Your task to perform on an android device: read, delete, or share a saved page in the chrome app Image 0: 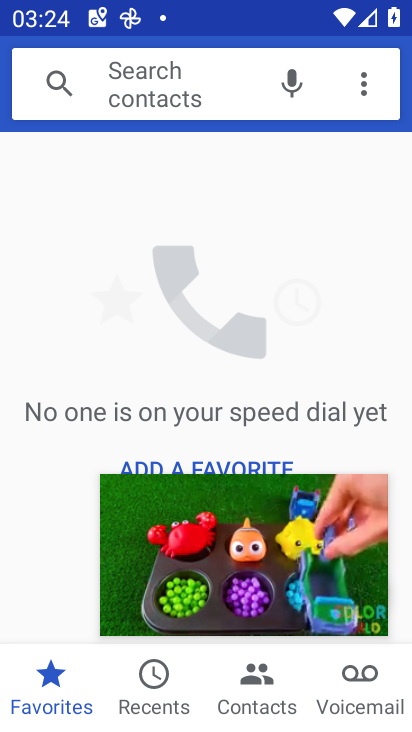
Step 0: press home button
Your task to perform on an android device: read, delete, or share a saved page in the chrome app Image 1: 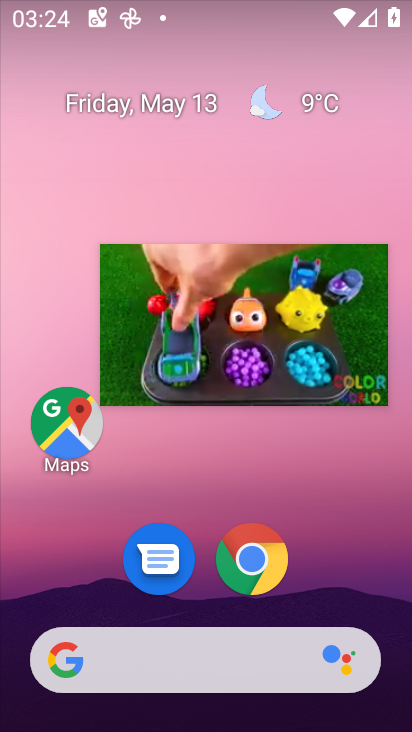
Step 1: click (254, 551)
Your task to perform on an android device: read, delete, or share a saved page in the chrome app Image 2: 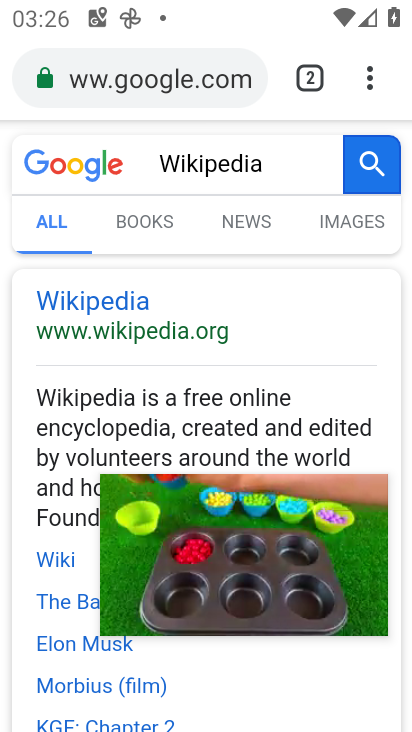
Step 2: click (367, 71)
Your task to perform on an android device: read, delete, or share a saved page in the chrome app Image 3: 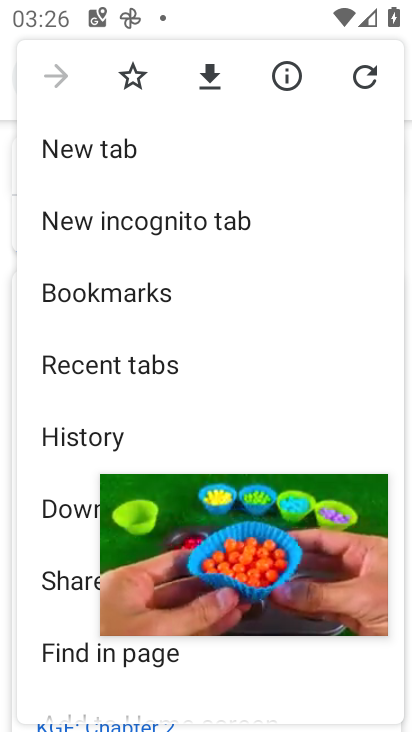
Step 3: click (64, 509)
Your task to perform on an android device: read, delete, or share a saved page in the chrome app Image 4: 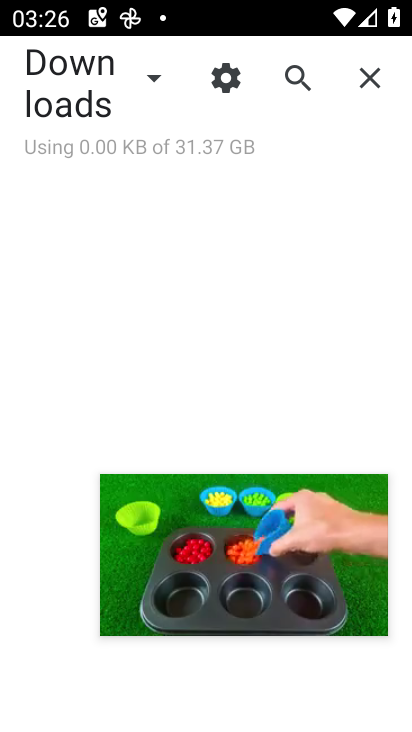
Step 4: task complete